Your task to perform on an android device: Go to sound settings Image 0: 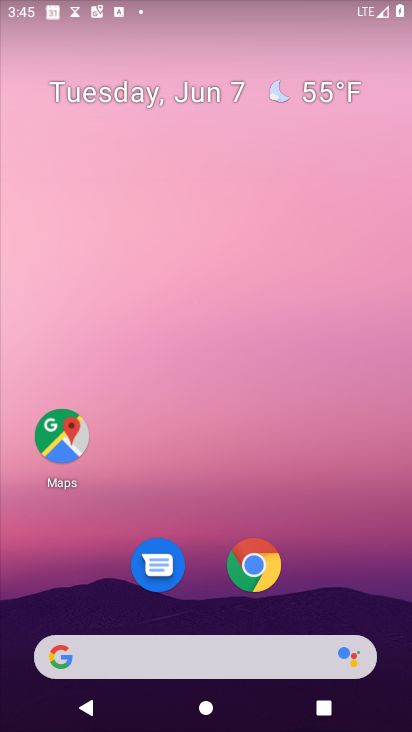
Step 0: drag from (226, 621) to (279, 59)
Your task to perform on an android device: Go to sound settings Image 1: 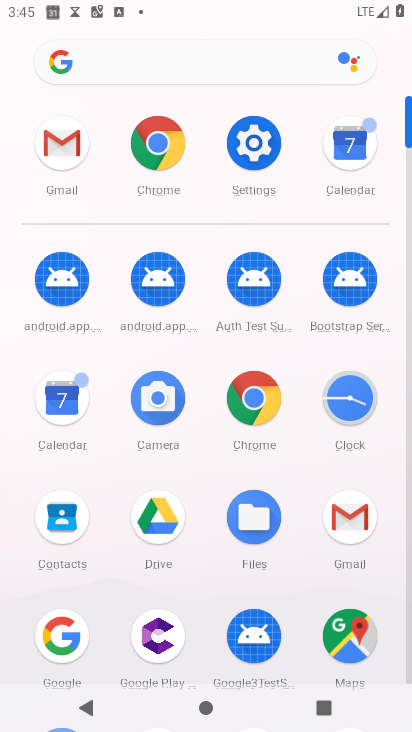
Step 1: click (233, 143)
Your task to perform on an android device: Go to sound settings Image 2: 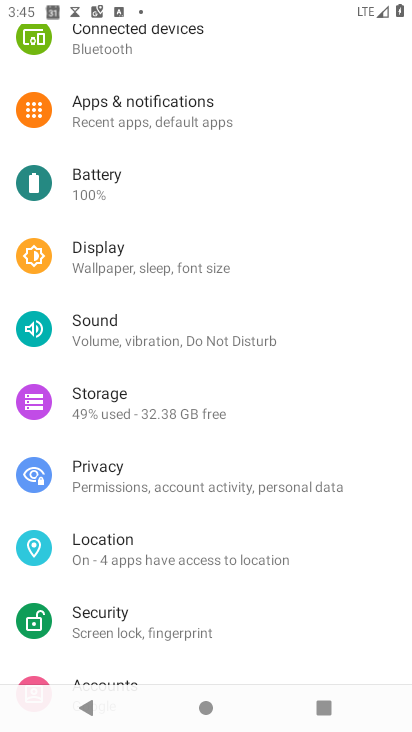
Step 2: click (144, 339)
Your task to perform on an android device: Go to sound settings Image 3: 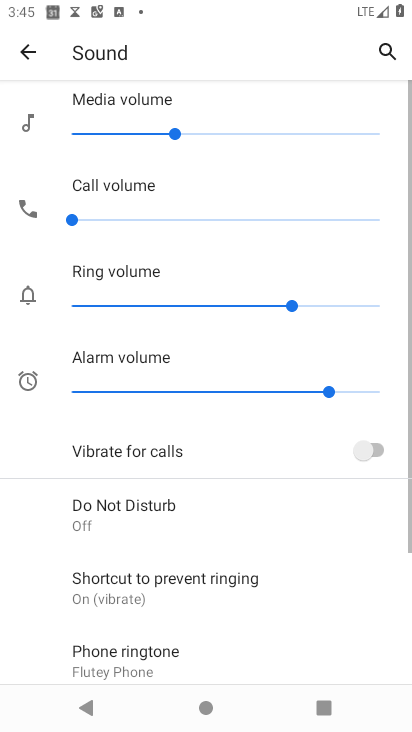
Step 3: task complete